Your task to perform on an android device: turn on translation in the chrome app Image 0: 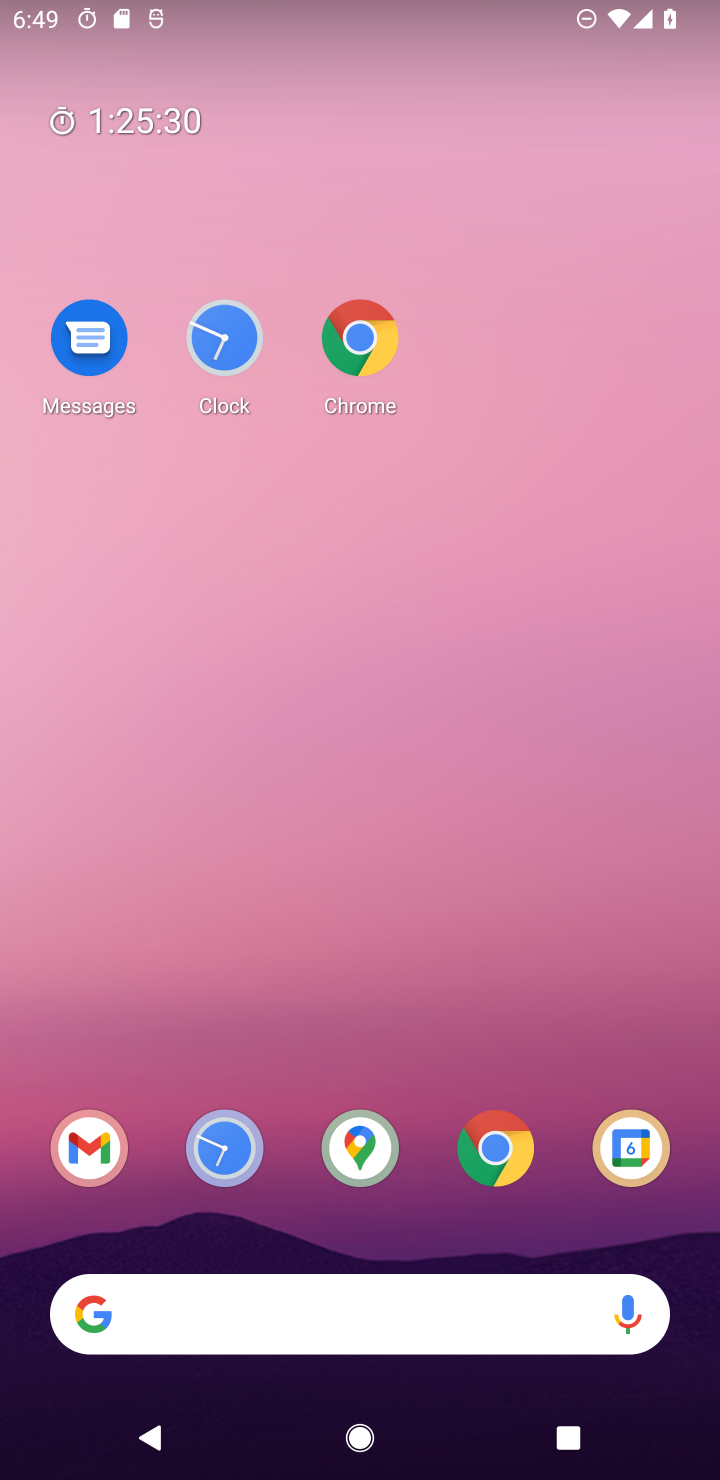
Step 0: drag from (459, 552) to (483, 393)
Your task to perform on an android device: turn on translation in the chrome app Image 1: 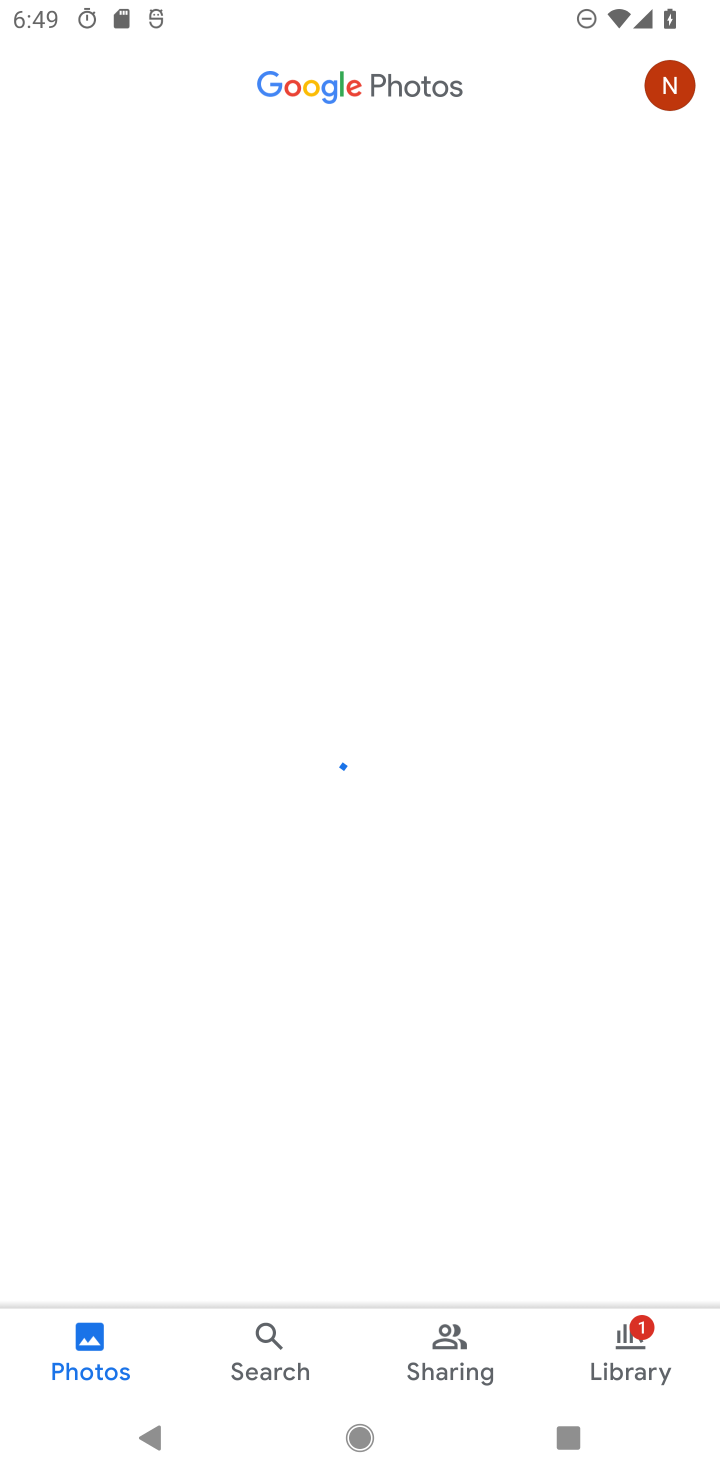
Step 1: press home button
Your task to perform on an android device: turn on translation in the chrome app Image 2: 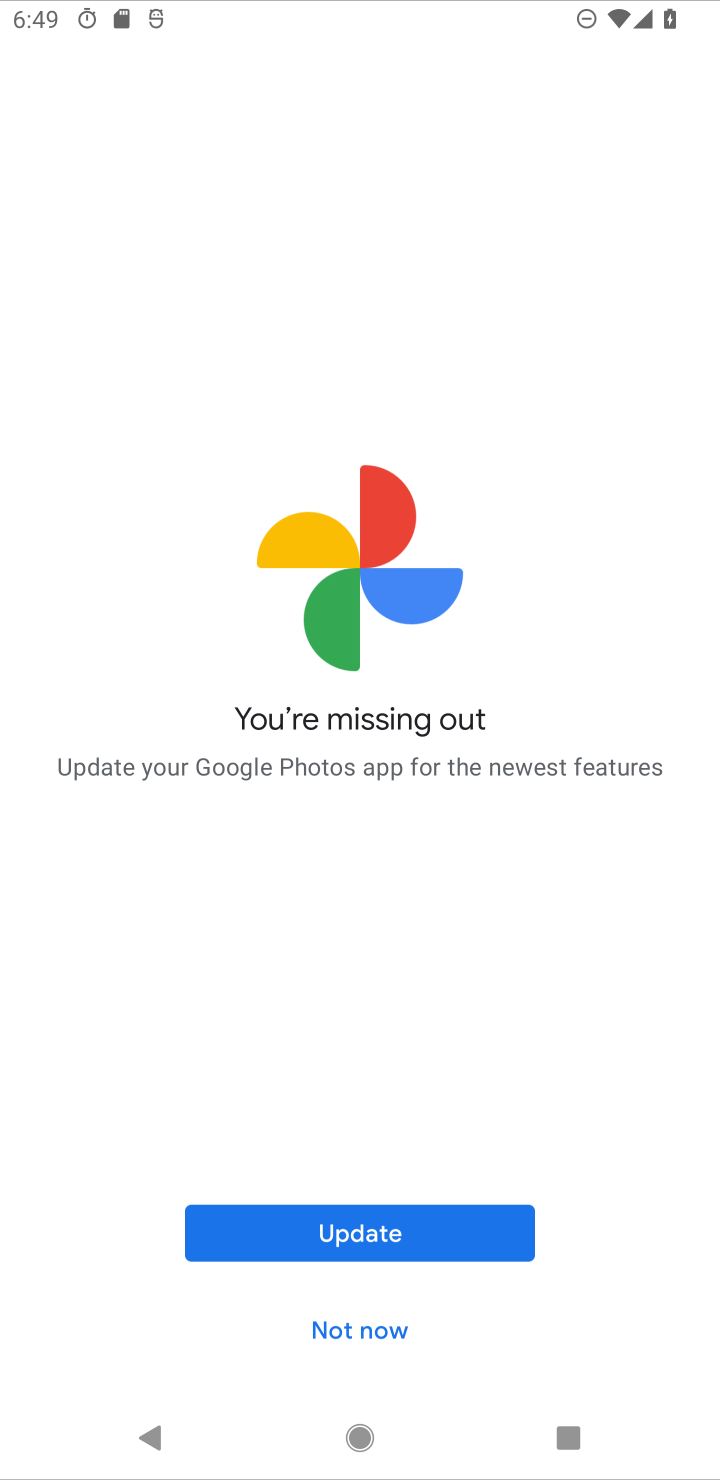
Step 2: drag from (358, 1287) to (362, 389)
Your task to perform on an android device: turn on translation in the chrome app Image 3: 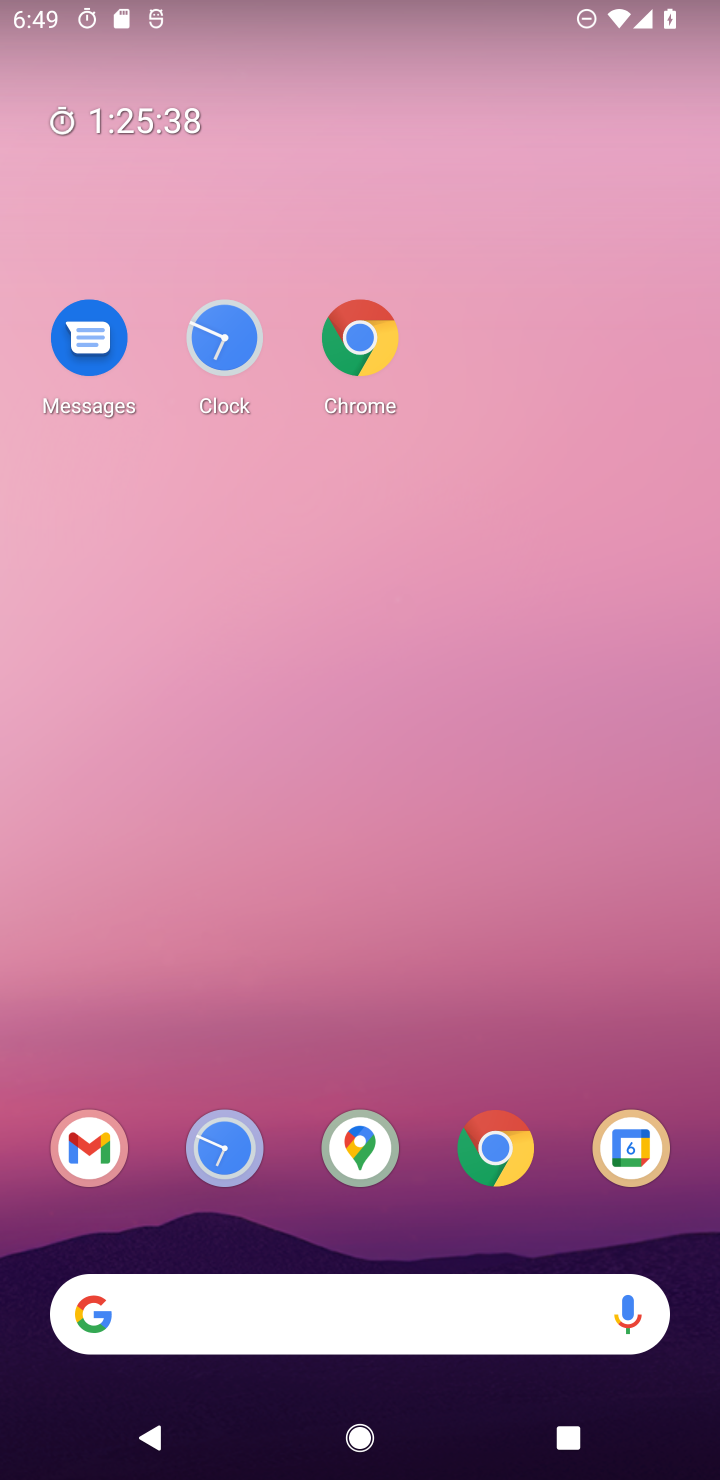
Step 3: click (492, 1145)
Your task to perform on an android device: turn on translation in the chrome app Image 4: 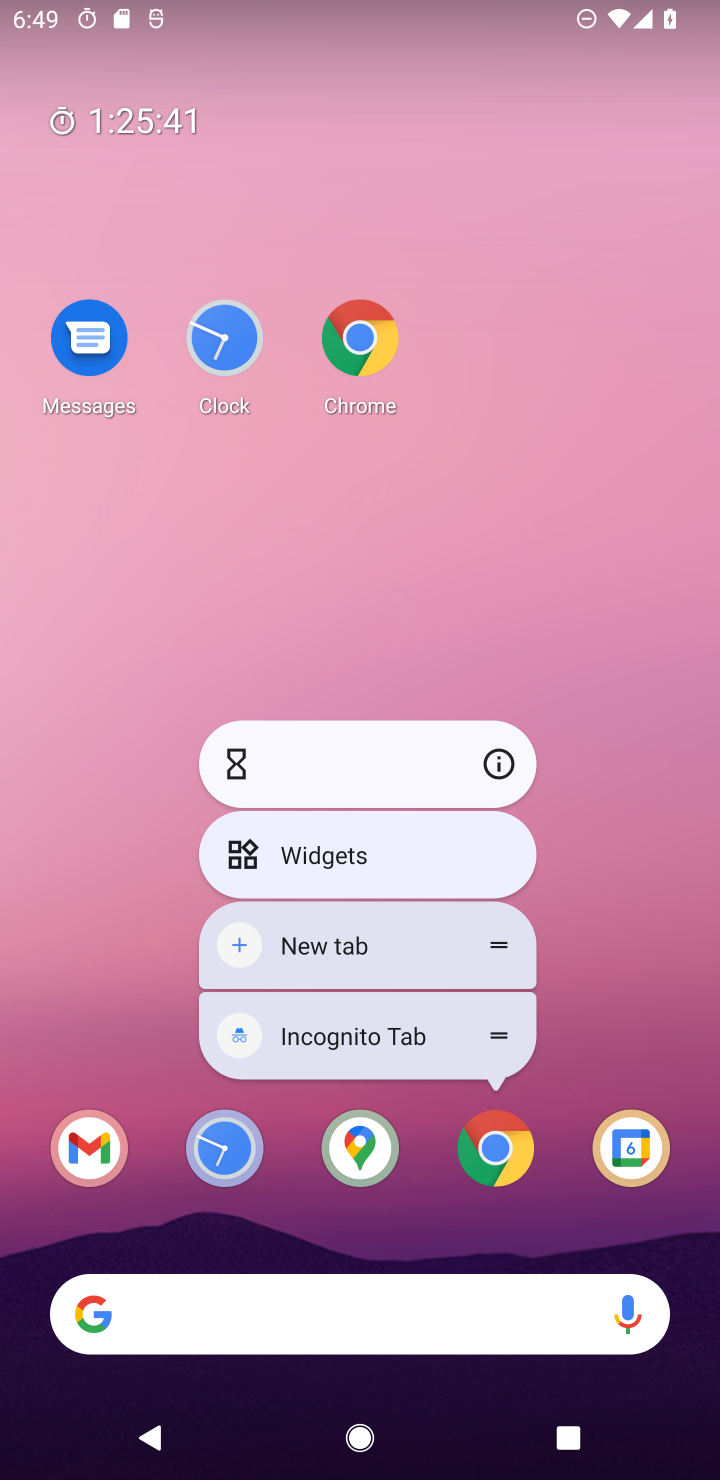
Step 4: click (490, 761)
Your task to perform on an android device: turn on translation in the chrome app Image 5: 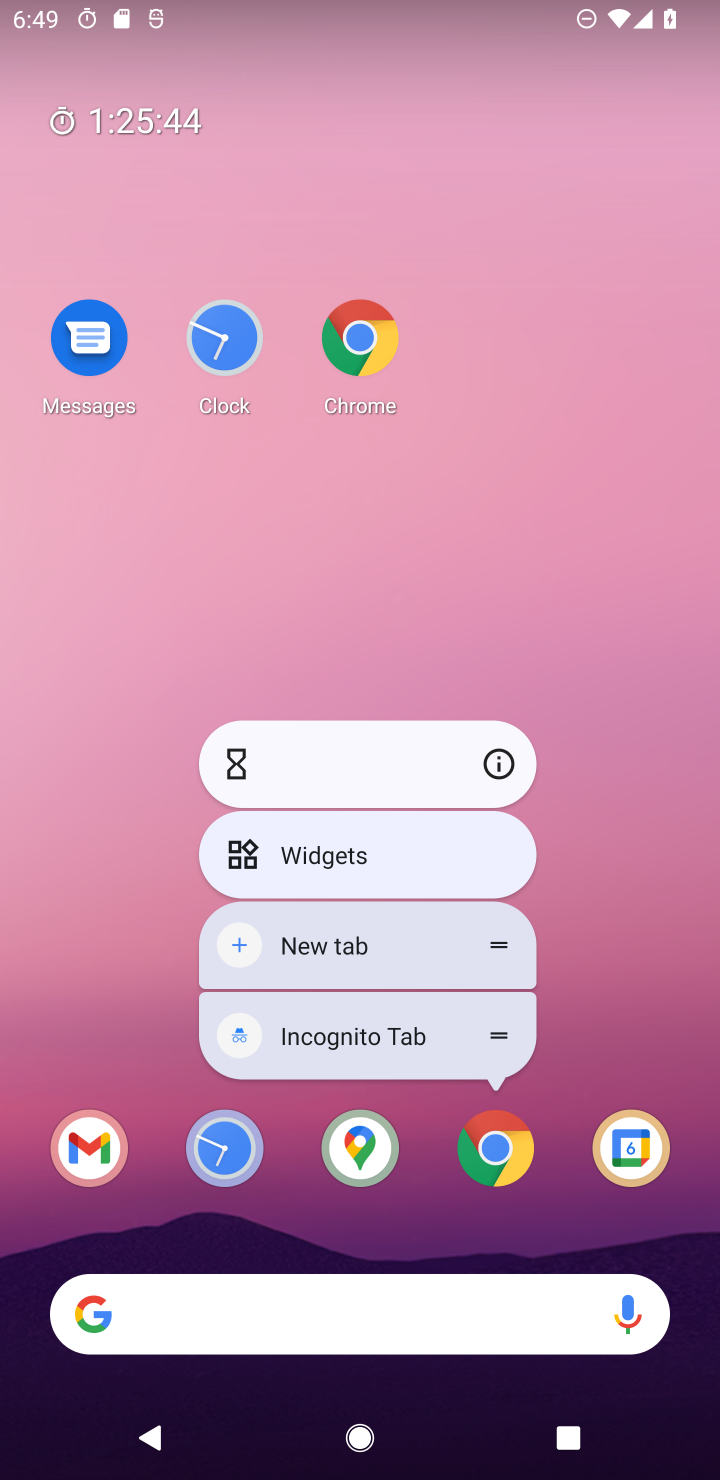
Step 5: click (501, 755)
Your task to perform on an android device: turn on translation in the chrome app Image 6: 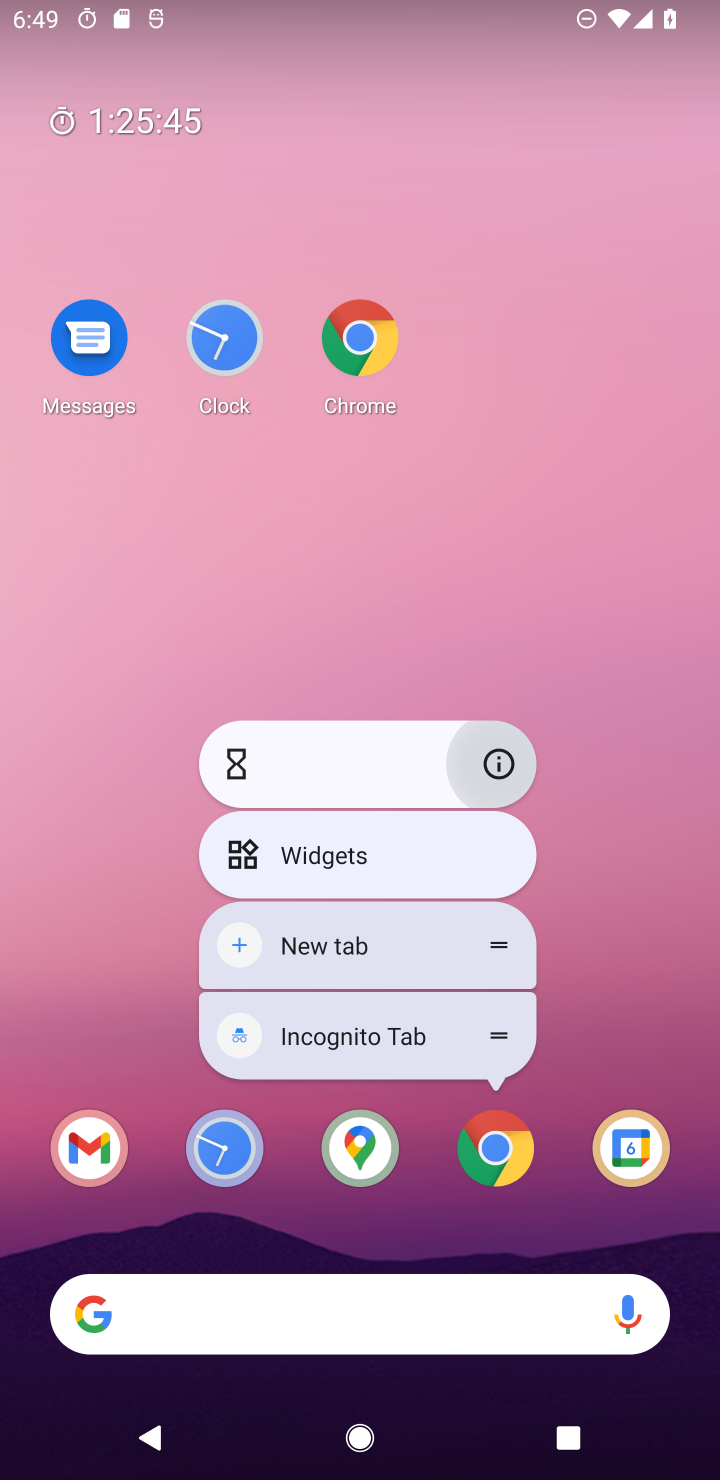
Step 6: click (488, 1143)
Your task to perform on an android device: turn on translation in the chrome app Image 7: 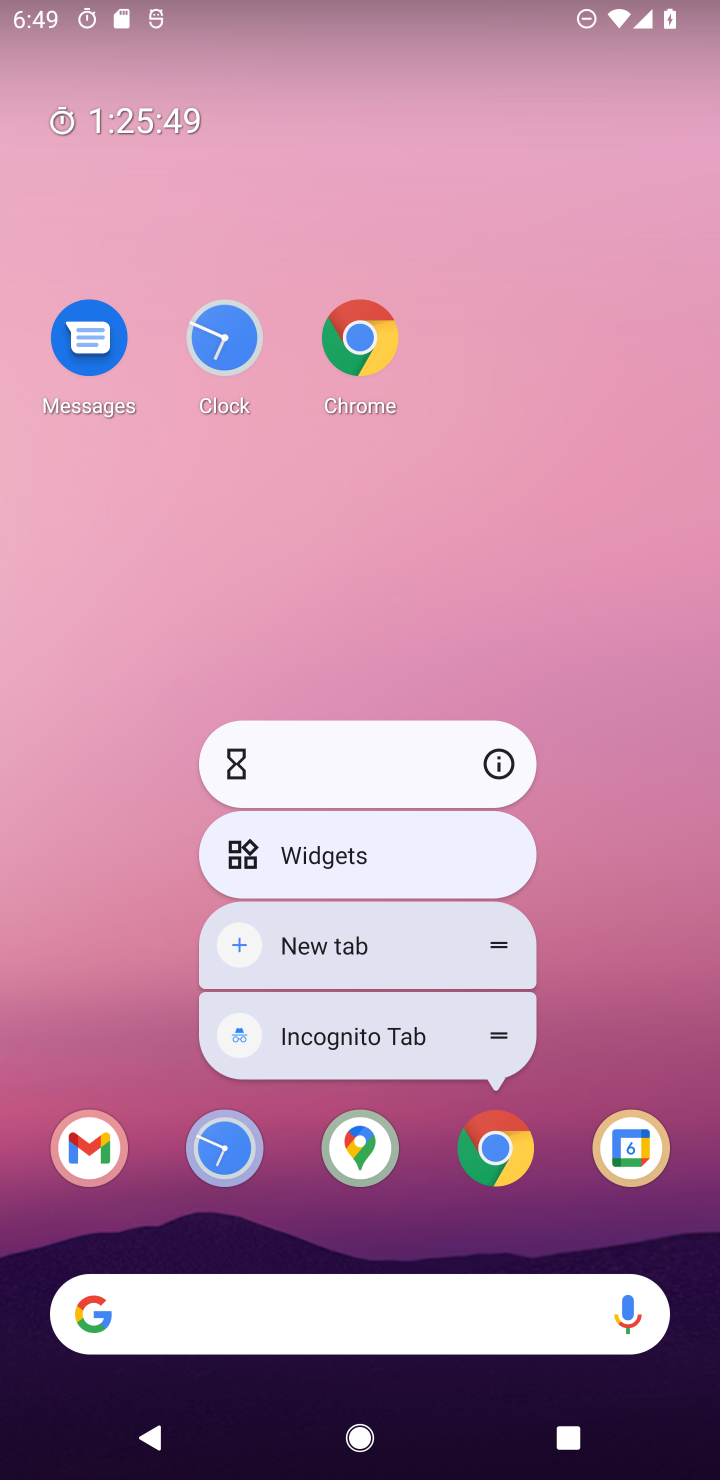
Step 7: click (480, 1153)
Your task to perform on an android device: turn on translation in the chrome app Image 8: 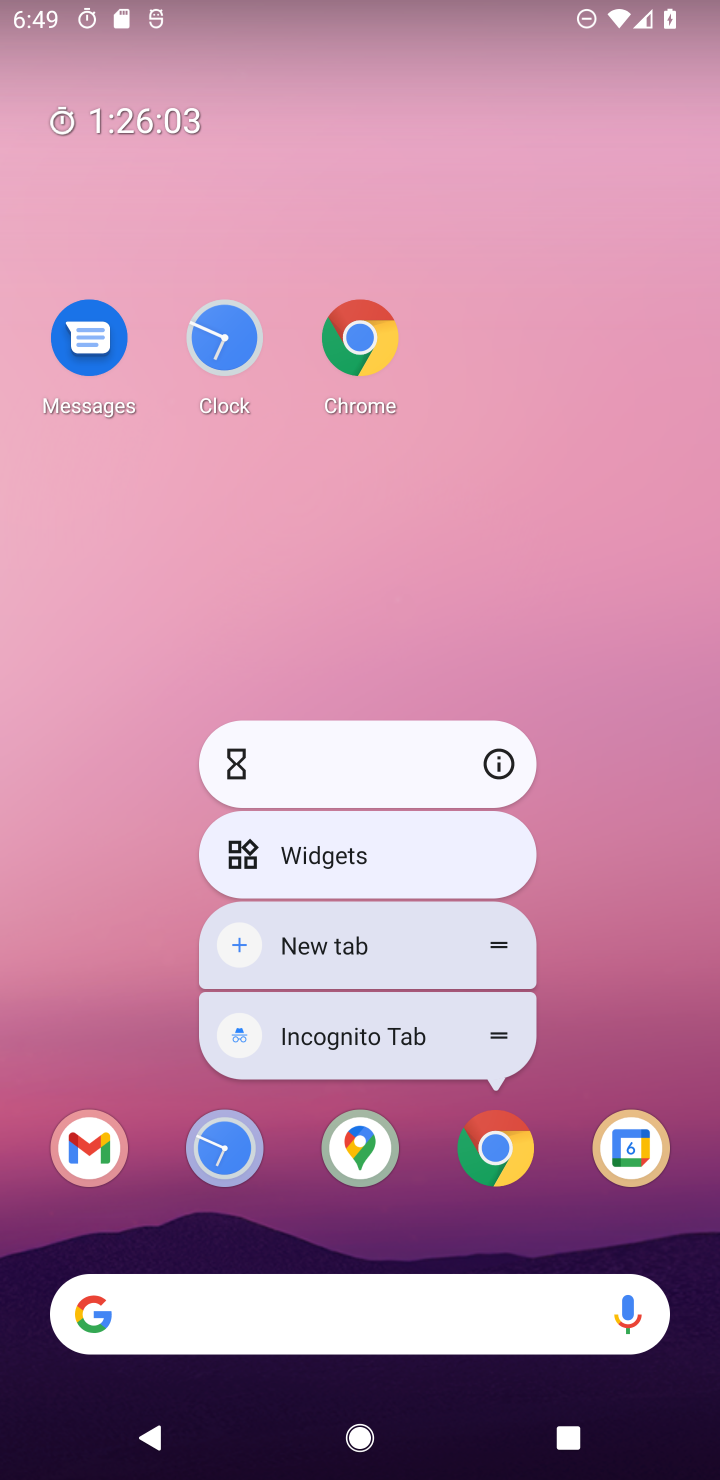
Step 8: click (490, 1137)
Your task to perform on an android device: turn on translation in the chrome app Image 9: 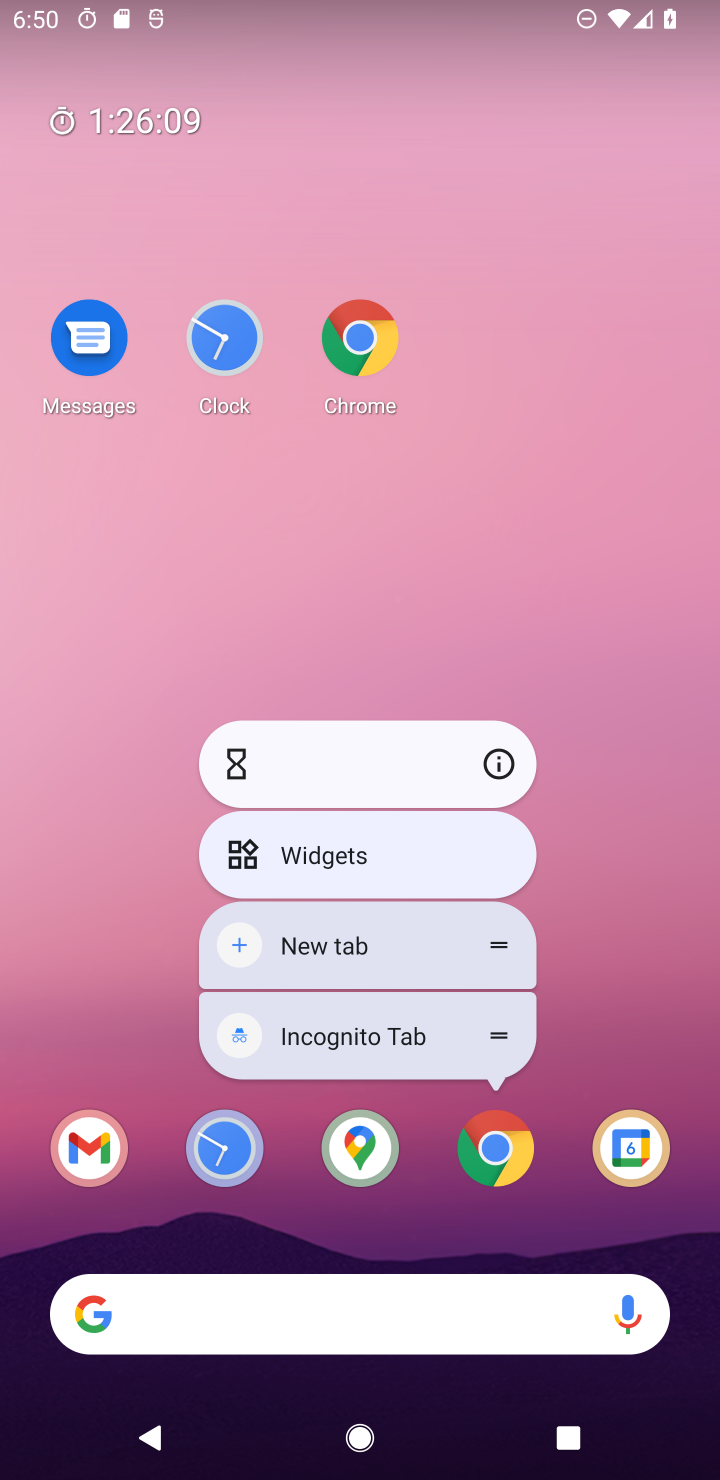
Step 9: click (474, 1133)
Your task to perform on an android device: turn on translation in the chrome app Image 10: 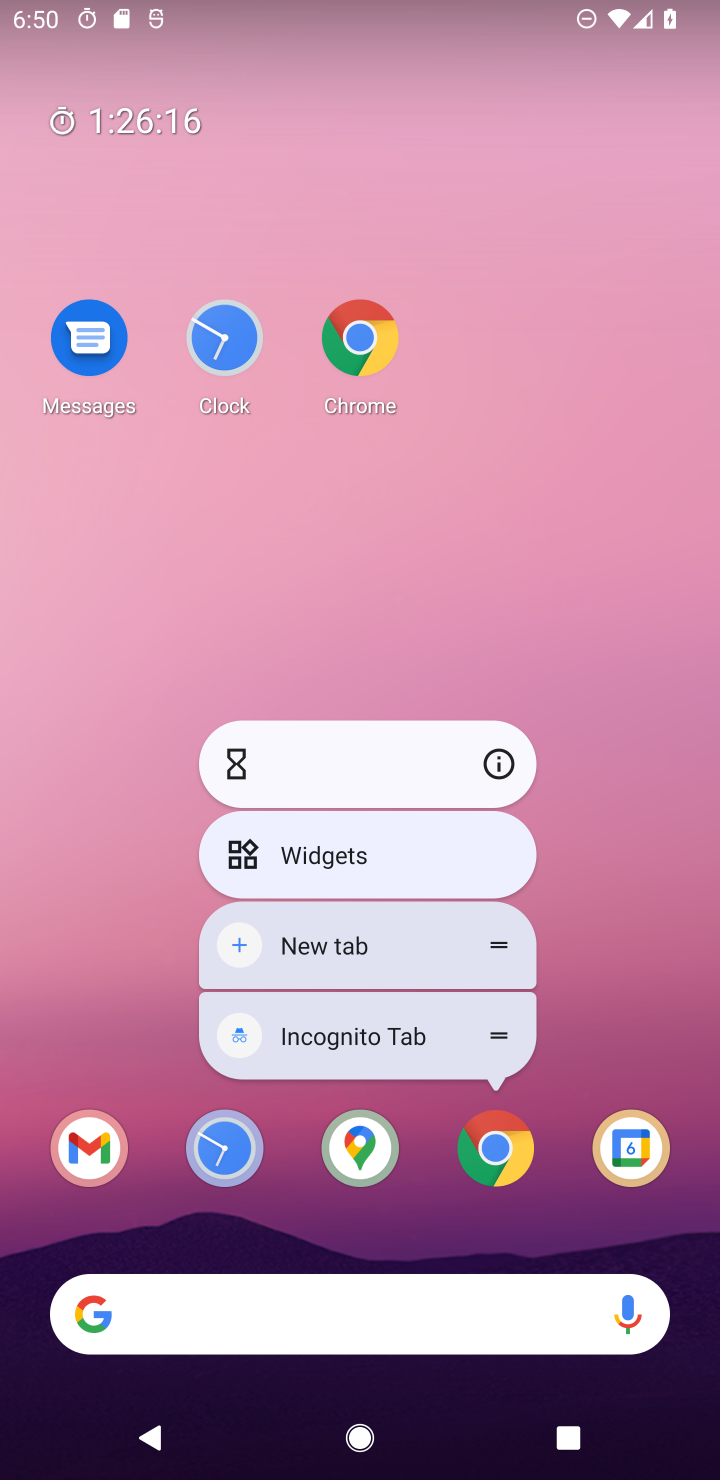
Step 10: click (486, 1149)
Your task to perform on an android device: turn on translation in the chrome app Image 11: 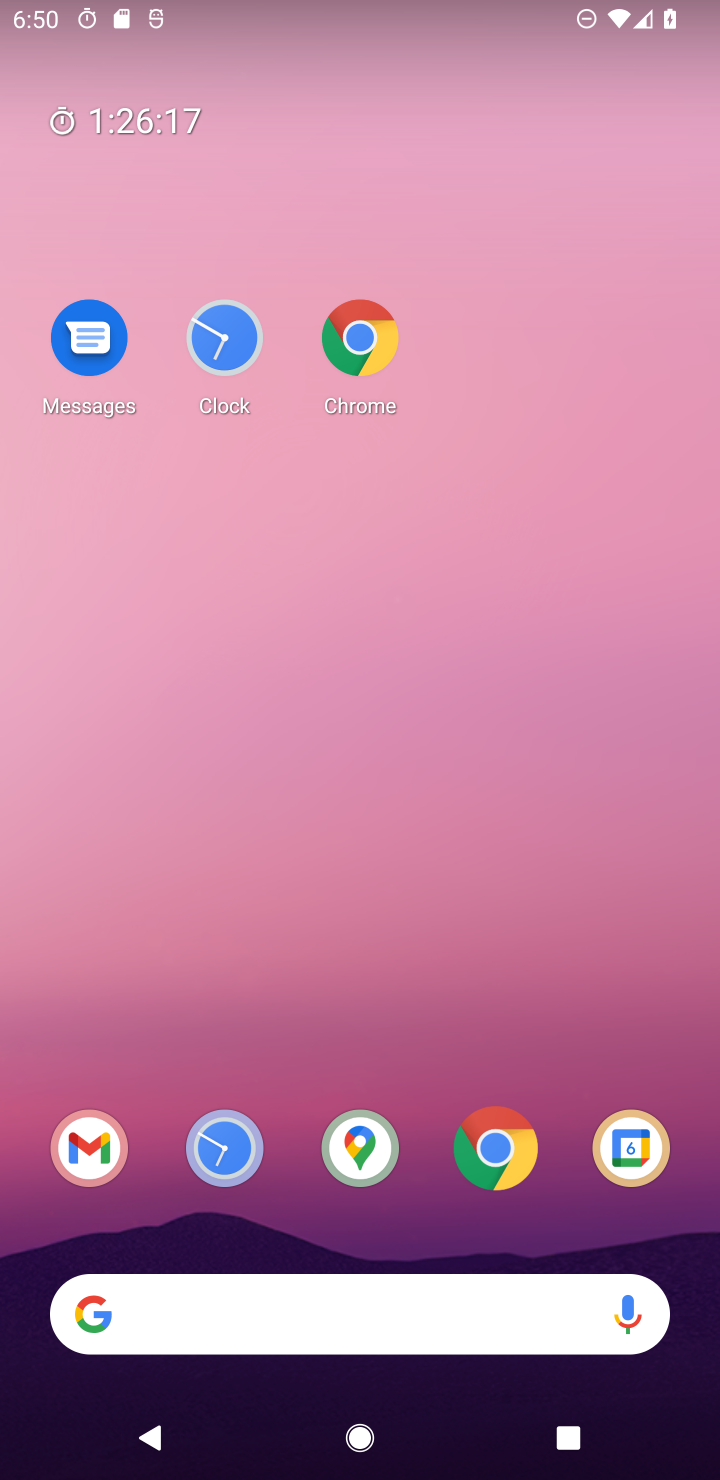
Step 11: click (484, 1145)
Your task to perform on an android device: turn on translation in the chrome app Image 12: 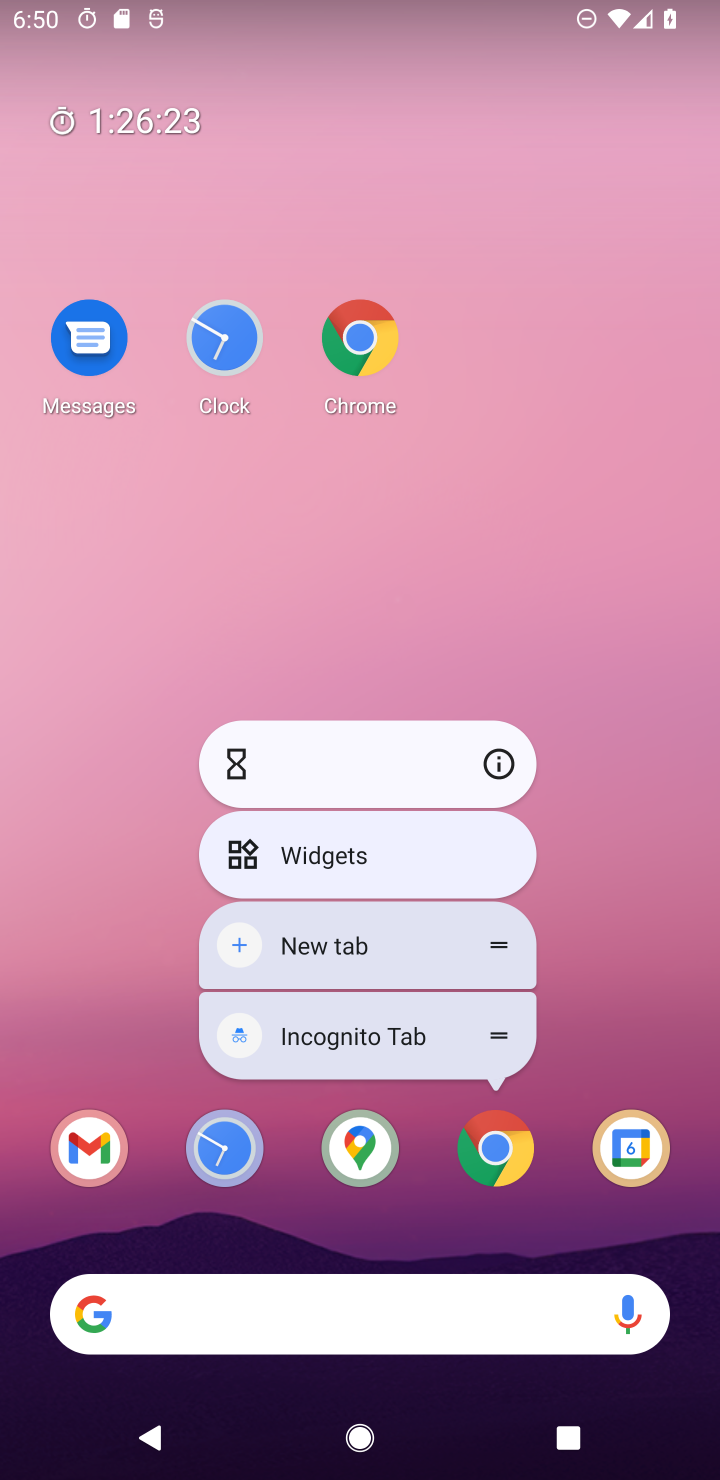
Step 12: click (478, 1146)
Your task to perform on an android device: turn on translation in the chrome app Image 13: 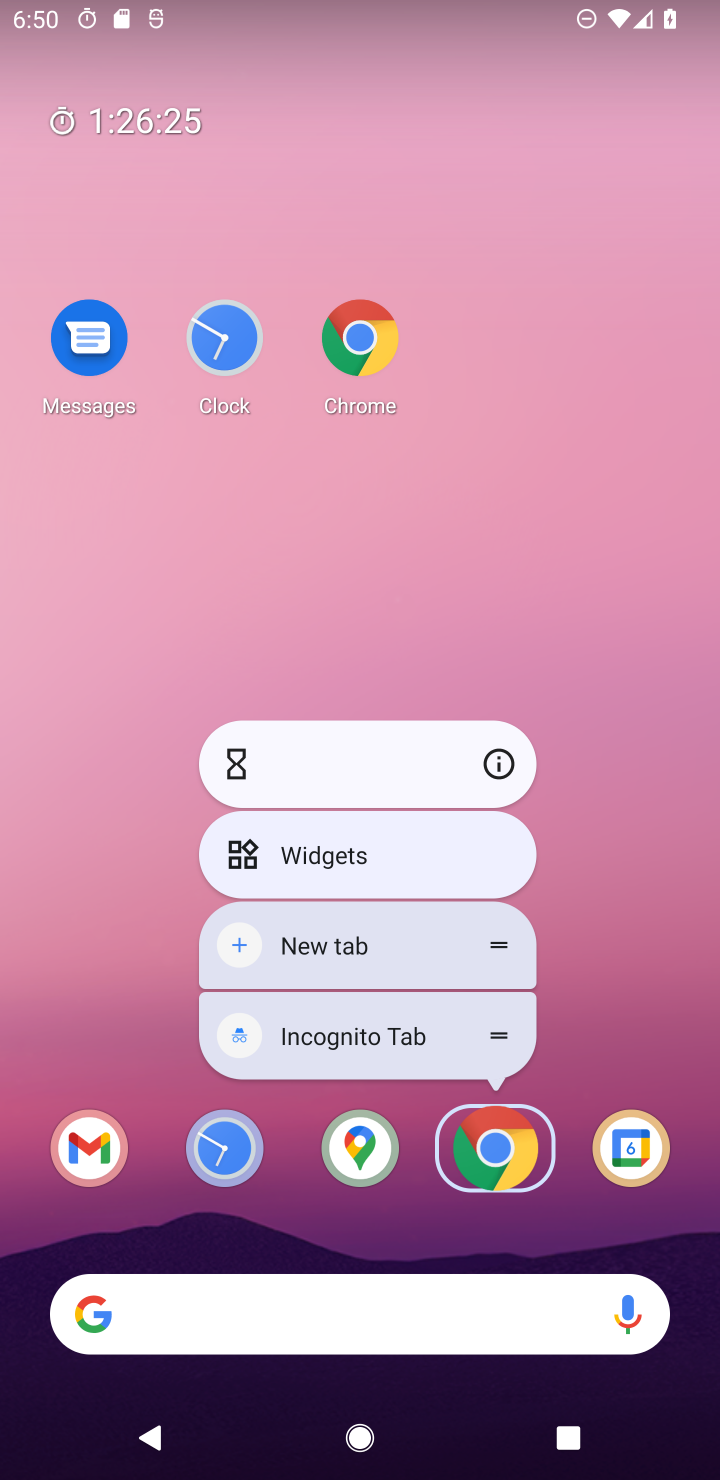
Step 13: click (478, 1146)
Your task to perform on an android device: turn on translation in the chrome app Image 14: 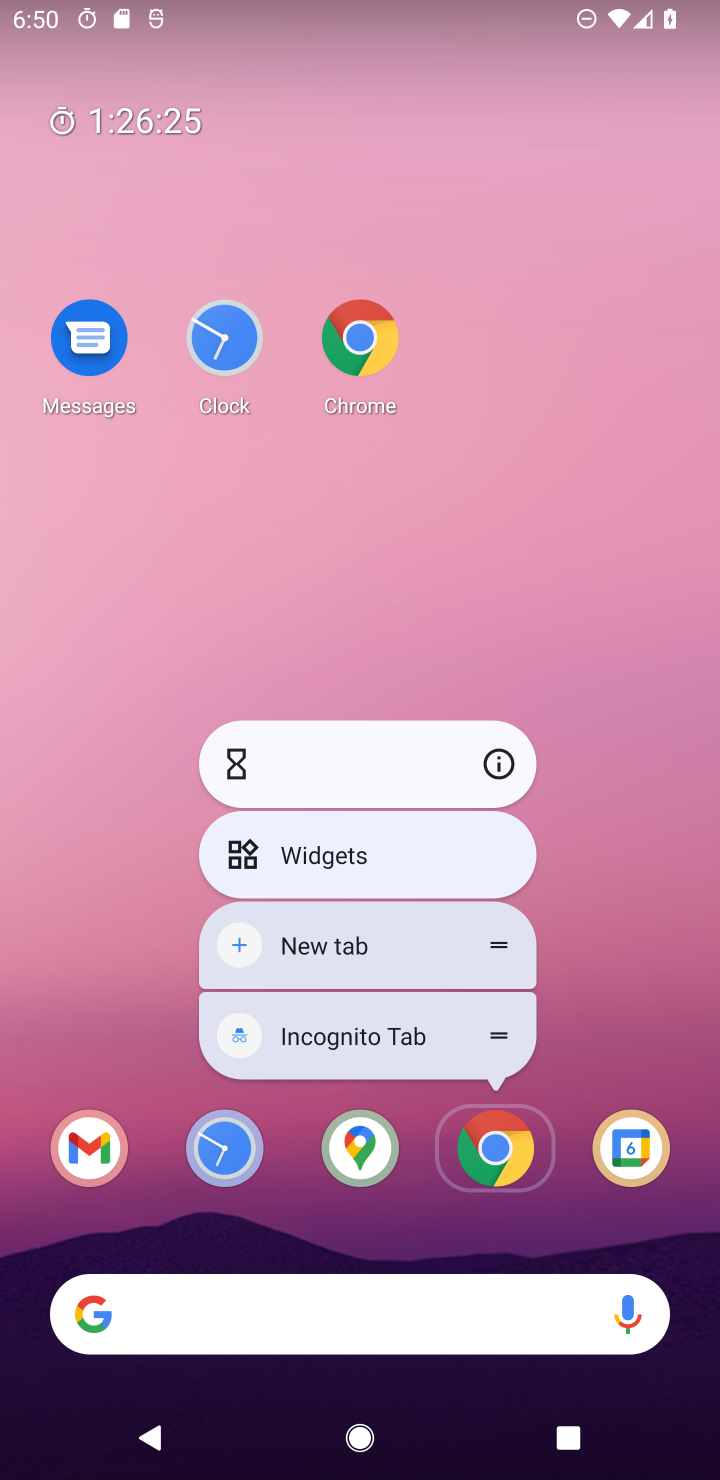
Step 14: click (480, 1148)
Your task to perform on an android device: turn on translation in the chrome app Image 15: 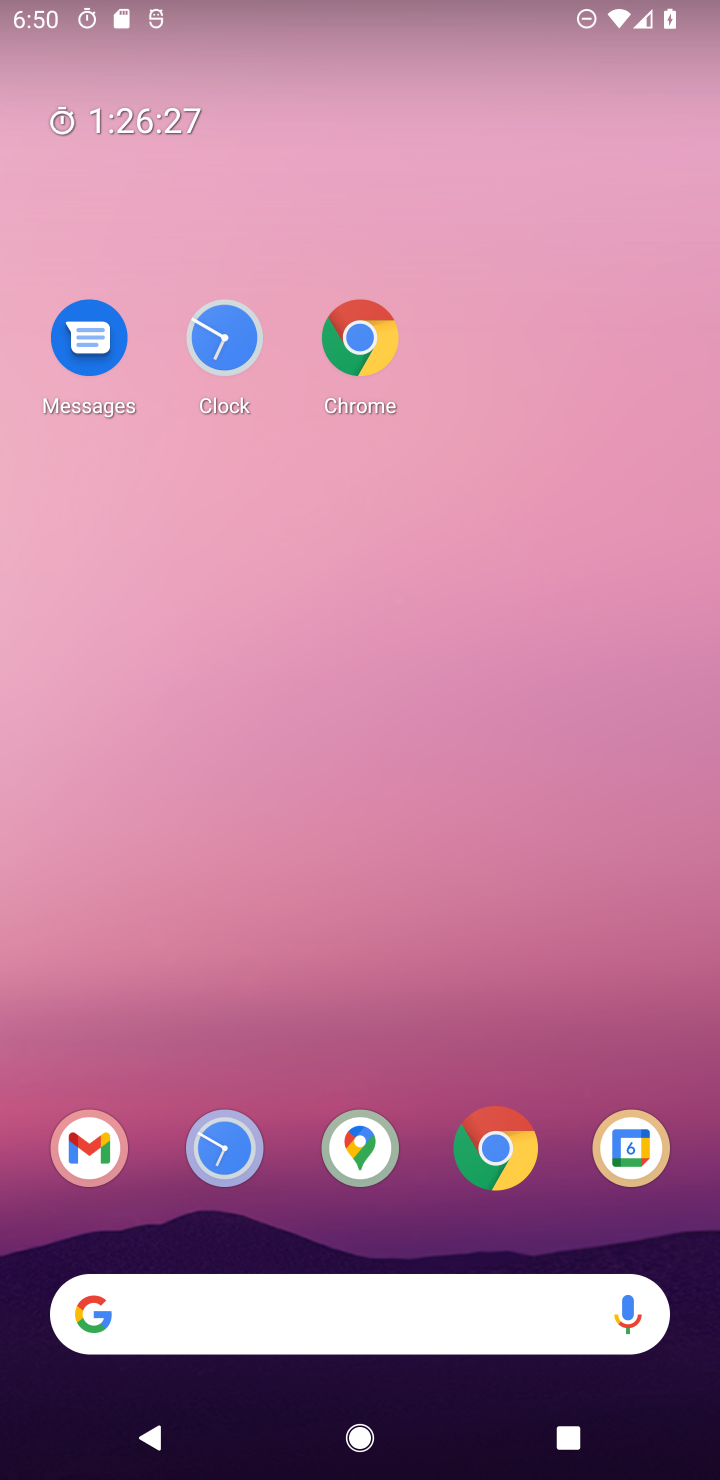
Step 15: click (476, 1146)
Your task to perform on an android device: turn on translation in the chrome app Image 16: 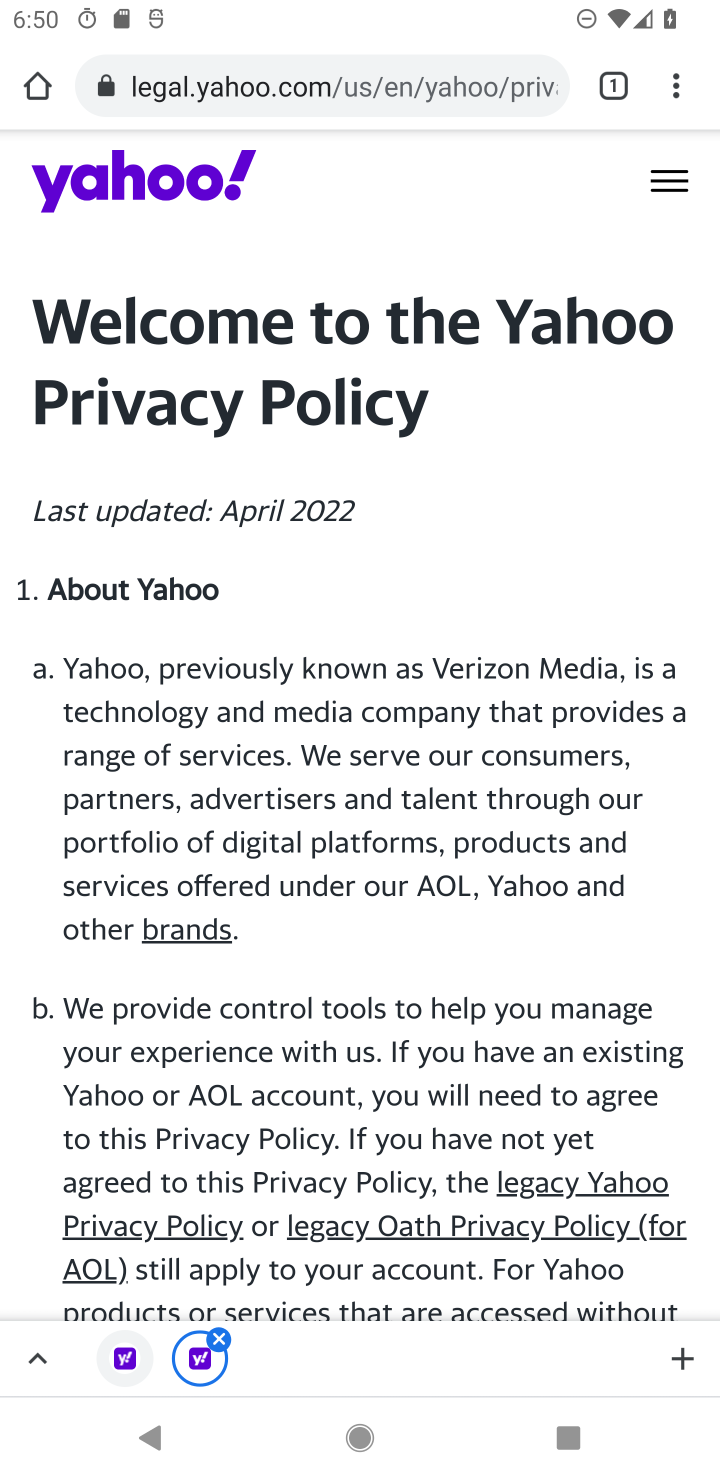
Step 16: drag from (673, 78) to (441, 1158)
Your task to perform on an android device: turn on translation in the chrome app Image 17: 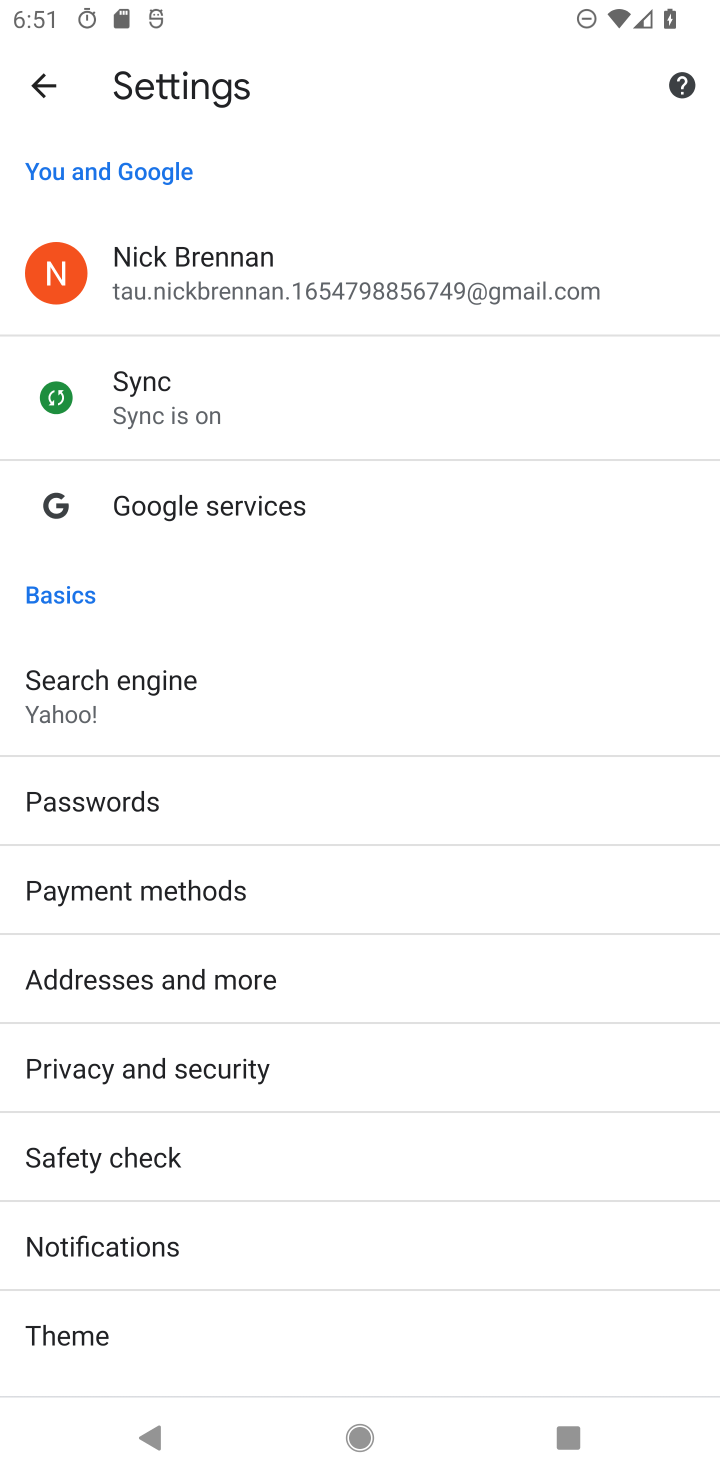
Step 17: drag from (231, 1129) to (363, 274)
Your task to perform on an android device: turn on translation in the chrome app Image 18: 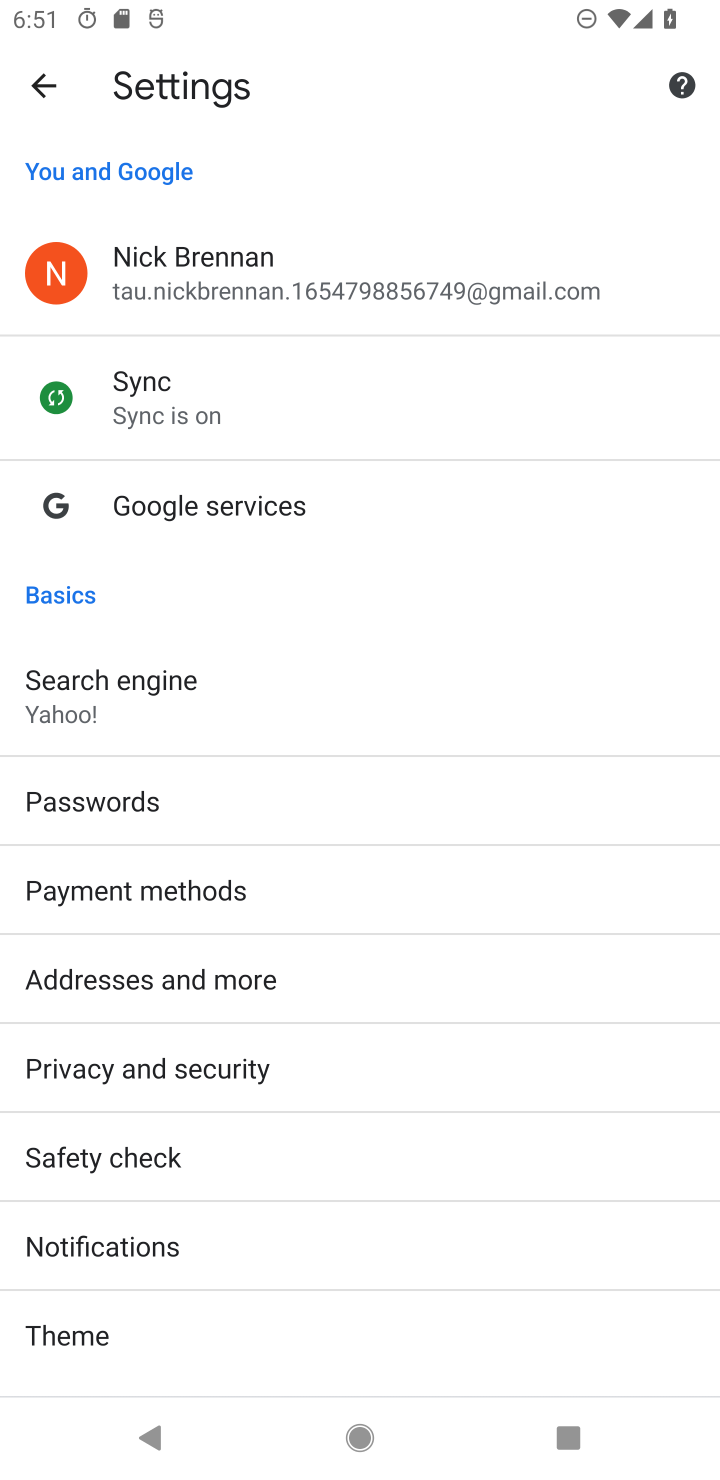
Step 18: drag from (328, 1135) to (340, 423)
Your task to perform on an android device: turn on translation in the chrome app Image 19: 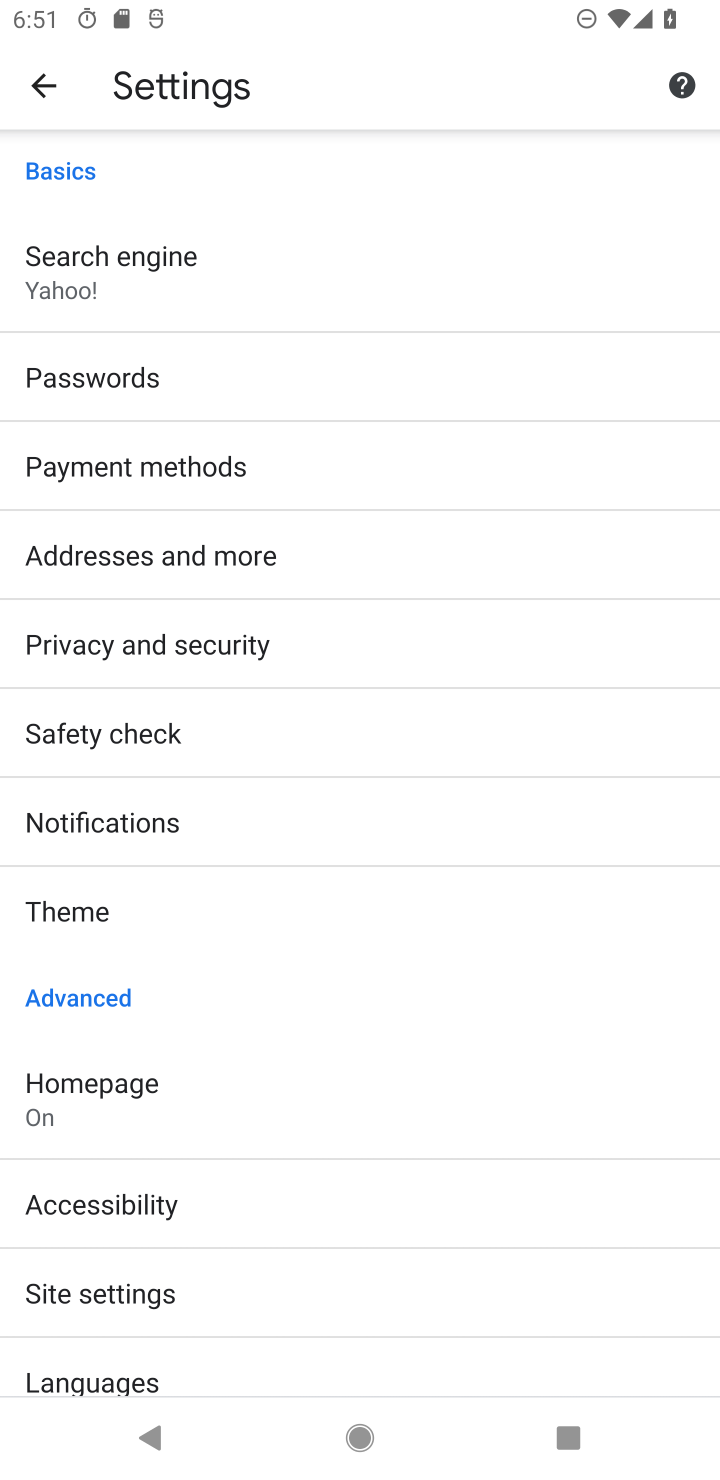
Step 19: drag from (434, 1287) to (385, 338)
Your task to perform on an android device: turn on translation in the chrome app Image 20: 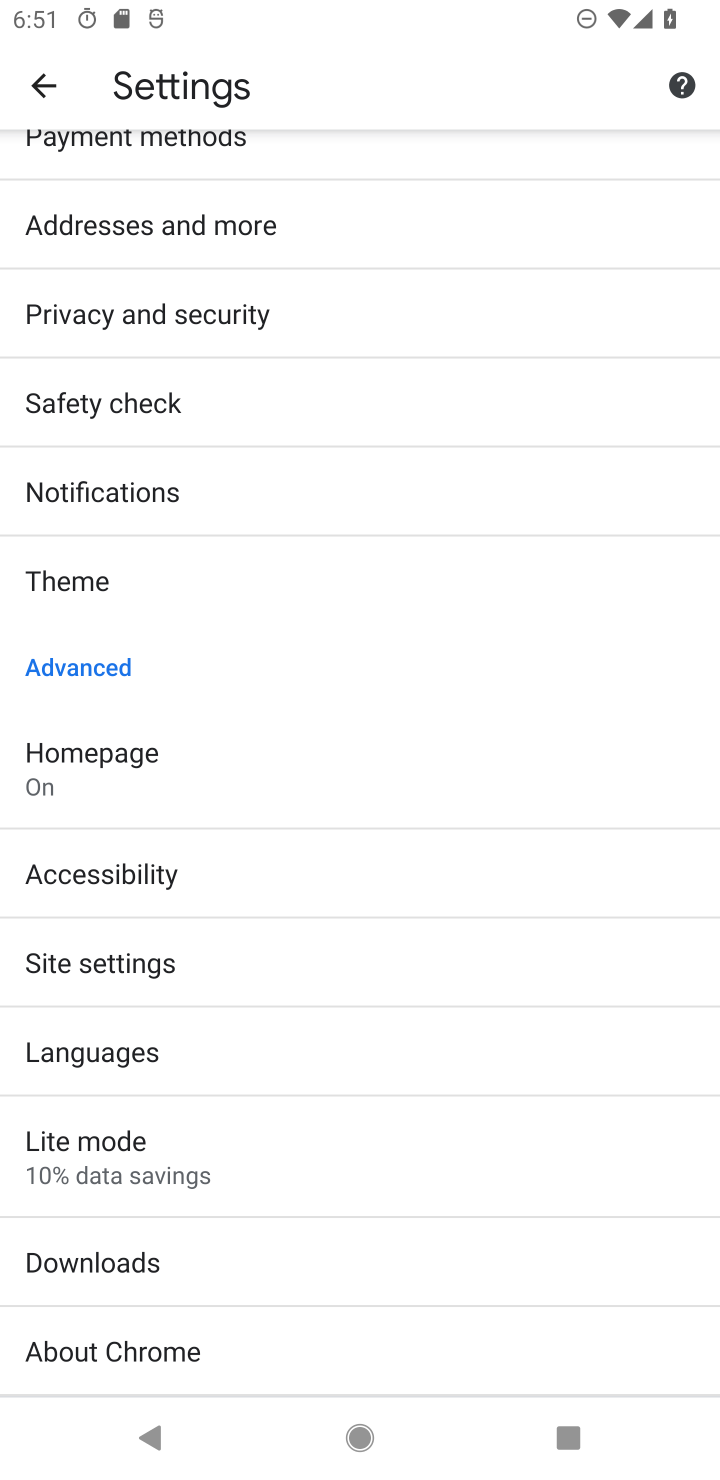
Step 20: click (209, 1039)
Your task to perform on an android device: turn on translation in the chrome app Image 21: 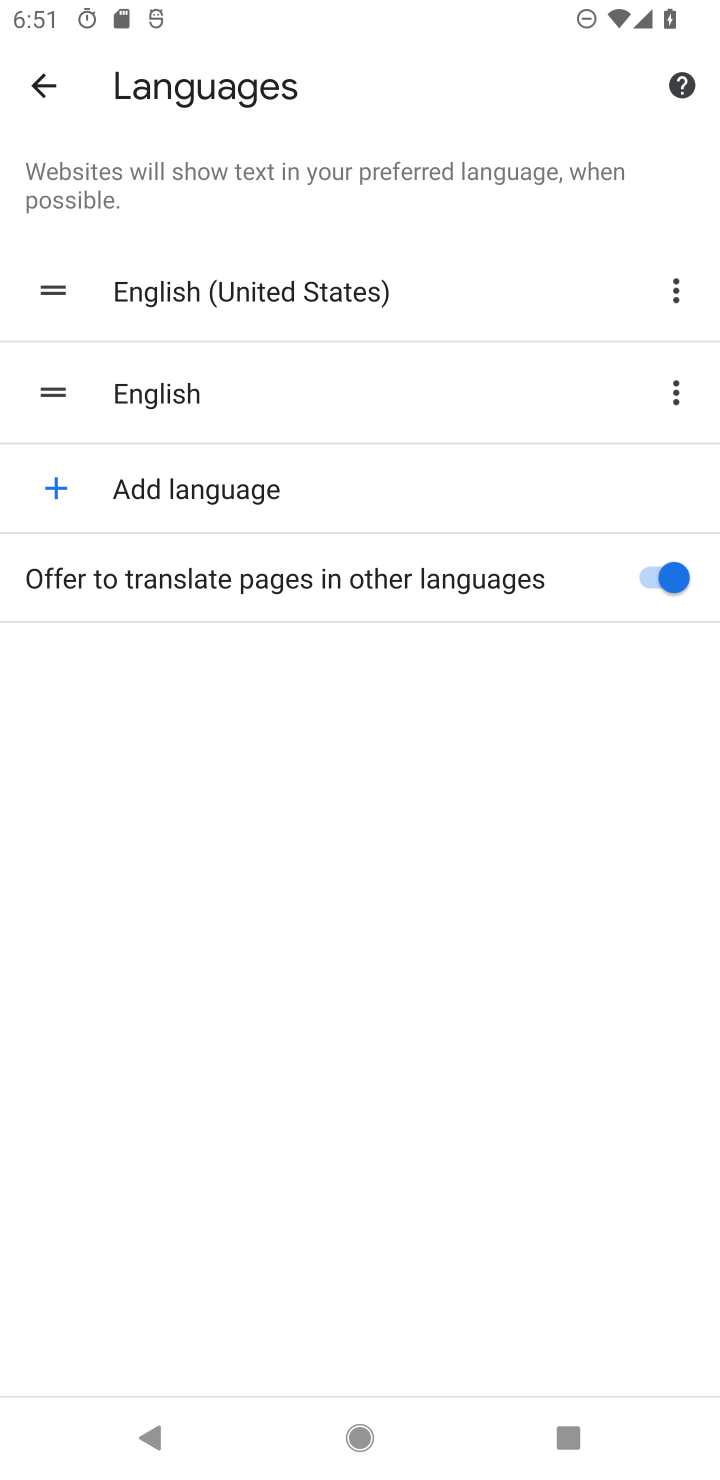
Step 21: task complete